Your task to perform on an android device: Open Google Image 0: 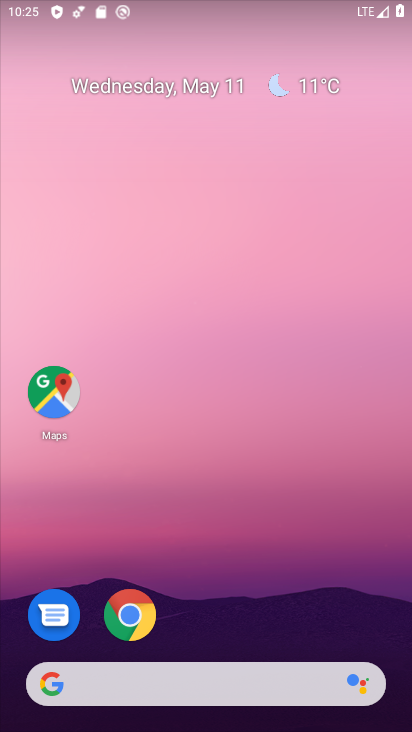
Step 0: drag from (236, 576) to (294, 94)
Your task to perform on an android device: Open Google Image 1: 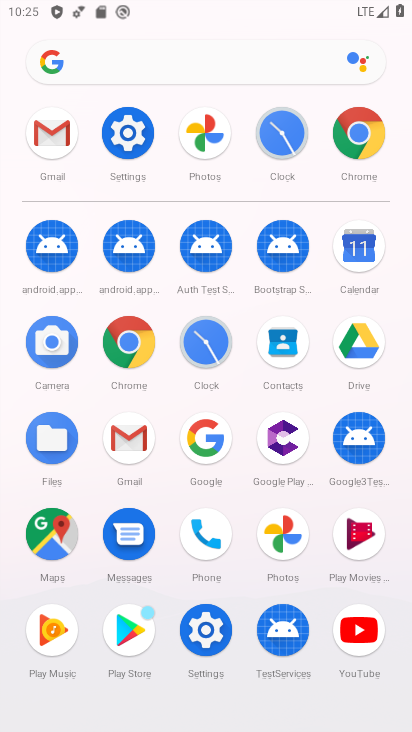
Step 1: click (213, 438)
Your task to perform on an android device: Open Google Image 2: 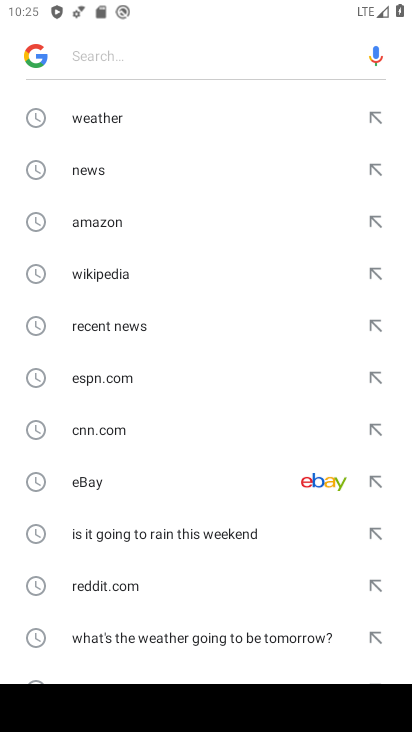
Step 2: task complete